Your task to perform on an android device: Open maps Image 0: 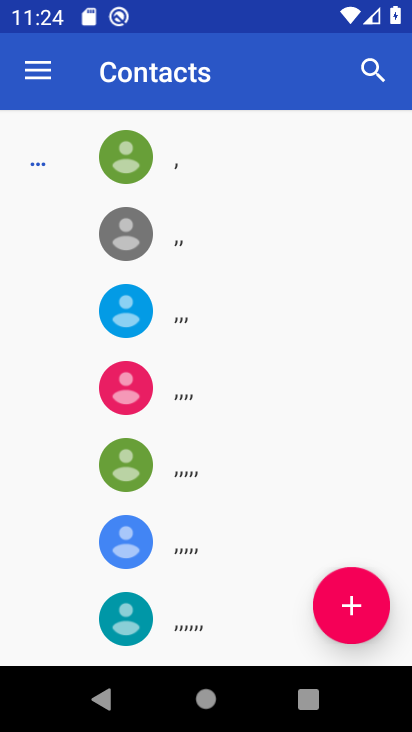
Step 0: press back button
Your task to perform on an android device: Open maps Image 1: 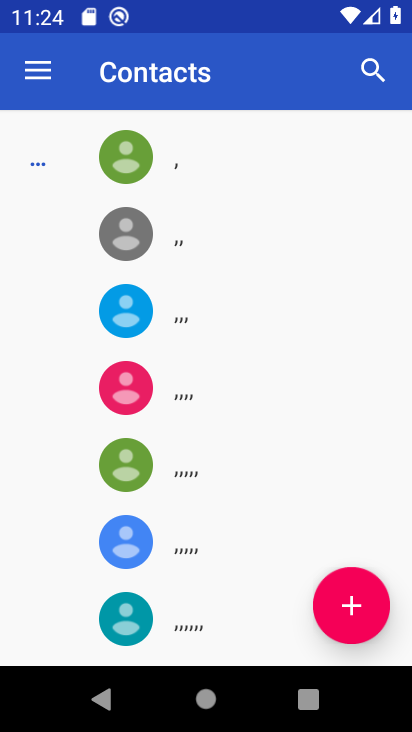
Step 1: press back button
Your task to perform on an android device: Open maps Image 2: 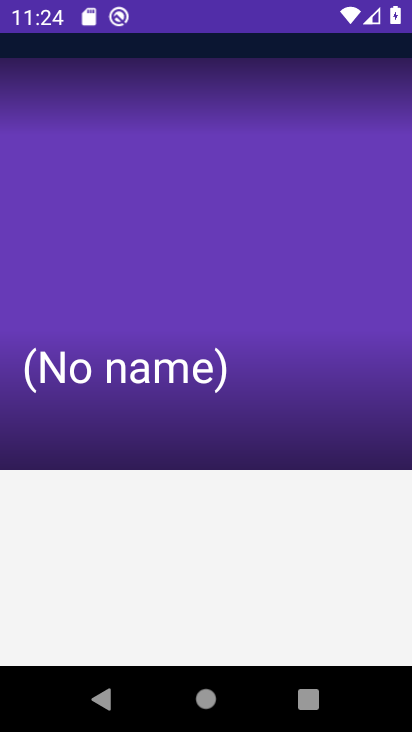
Step 2: press back button
Your task to perform on an android device: Open maps Image 3: 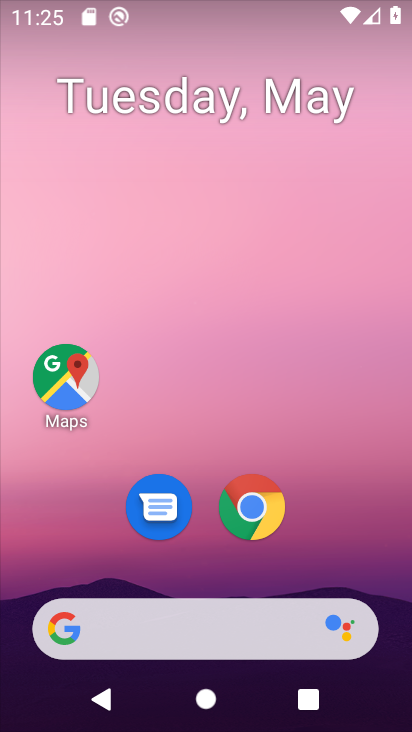
Step 3: drag from (248, 571) to (271, 70)
Your task to perform on an android device: Open maps Image 4: 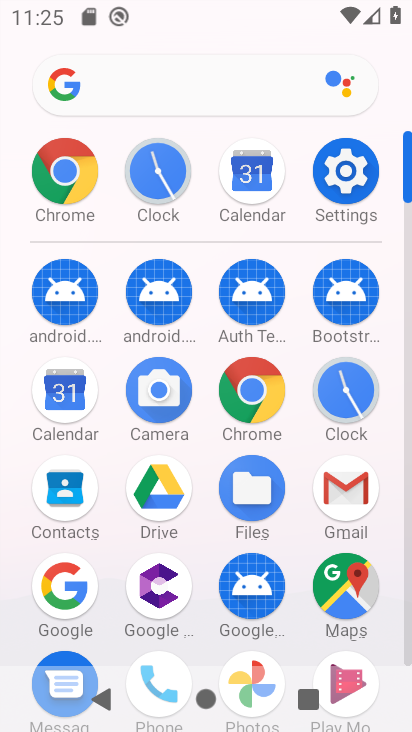
Step 4: click (340, 578)
Your task to perform on an android device: Open maps Image 5: 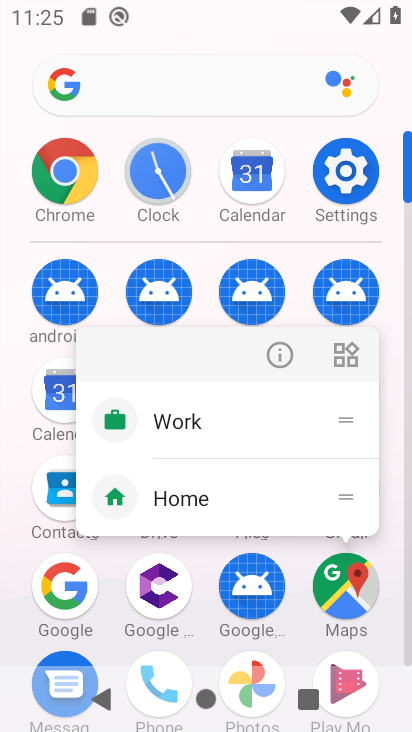
Step 5: click (340, 584)
Your task to perform on an android device: Open maps Image 6: 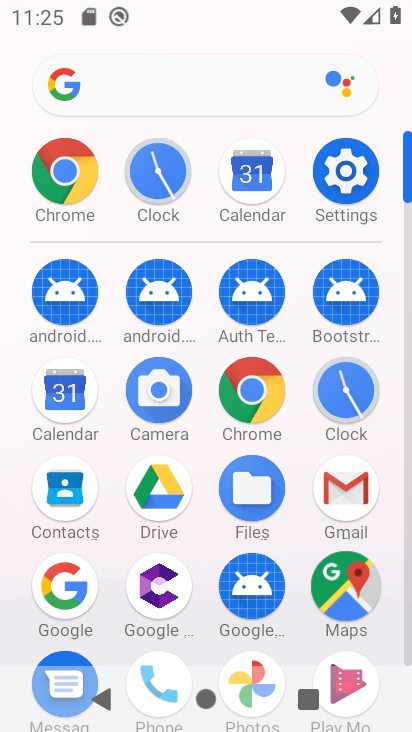
Step 6: click (344, 585)
Your task to perform on an android device: Open maps Image 7: 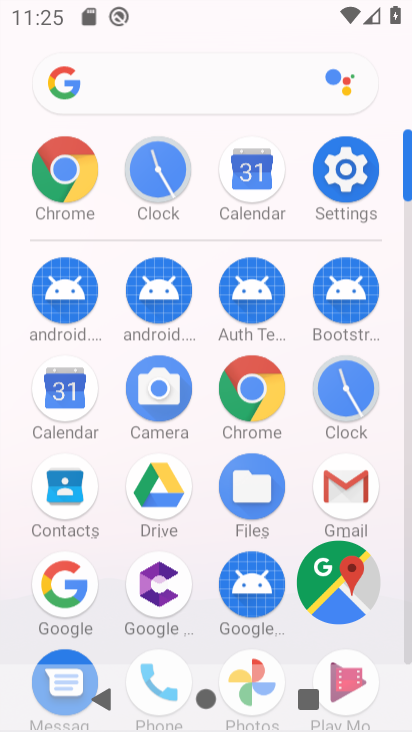
Step 7: click (343, 588)
Your task to perform on an android device: Open maps Image 8: 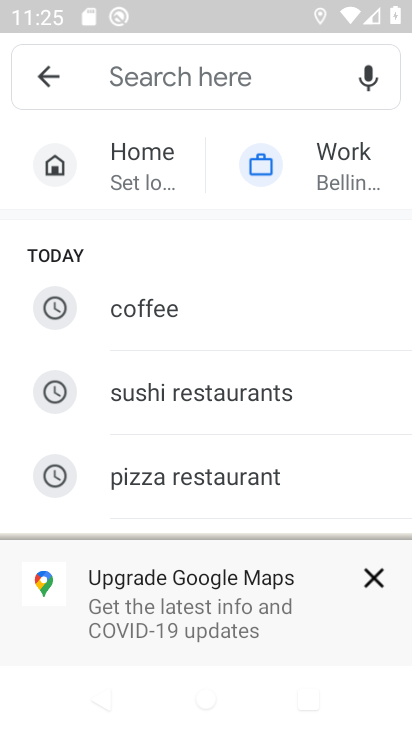
Step 8: click (50, 71)
Your task to perform on an android device: Open maps Image 9: 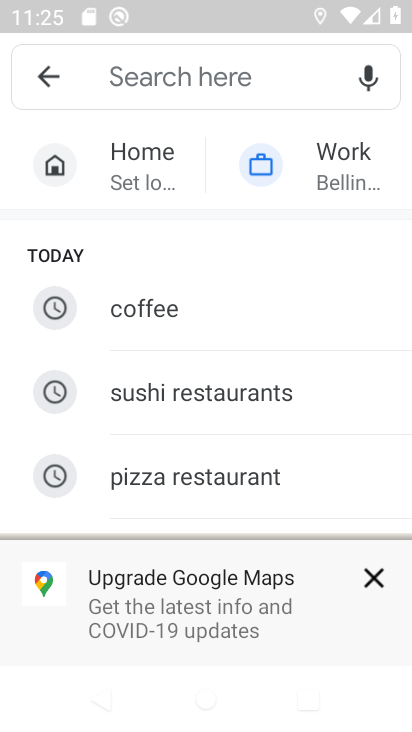
Step 9: click (54, 70)
Your task to perform on an android device: Open maps Image 10: 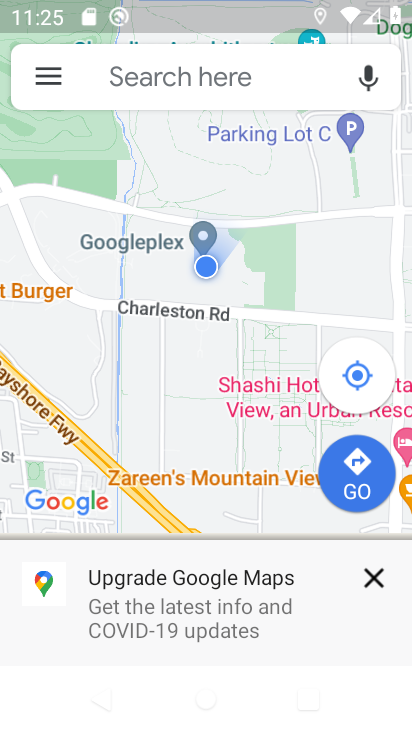
Step 10: task complete